Your task to perform on an android device: Open settings Image 0: 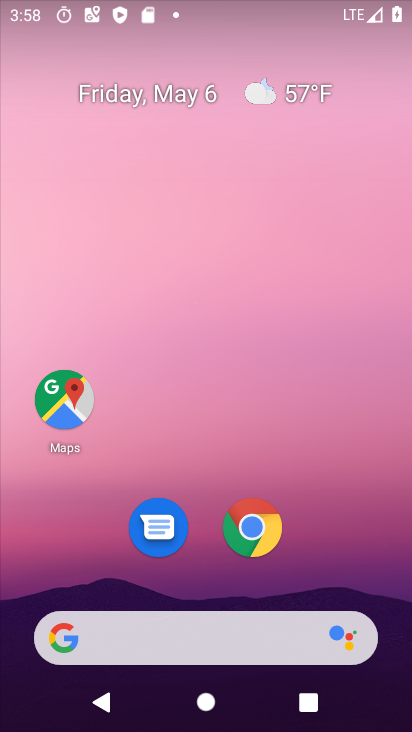
Step 0: drag from (348, 545) to (214, 114)
Your task to perform on an android device: Open settings Image 1: 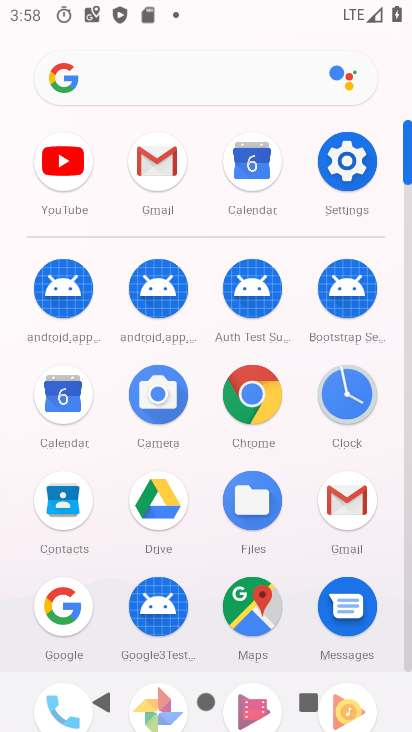
Step 1: click (333, 172)
Your task to perform on an android device: Open settings Image 2: 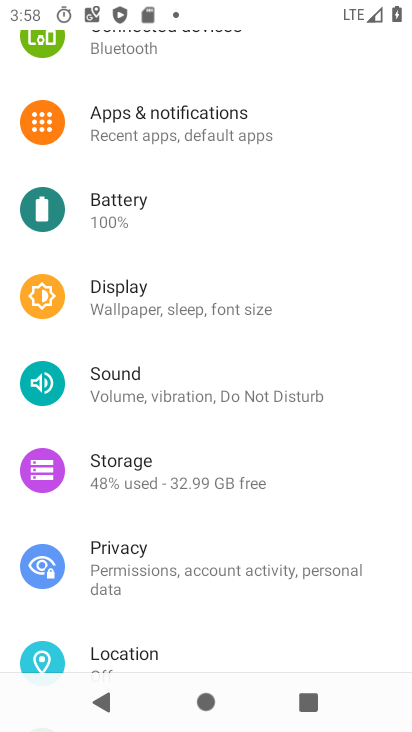
Step 2: task complete